Your task to perform on an android device: delete the emails in spam in the gmail app Image 0: 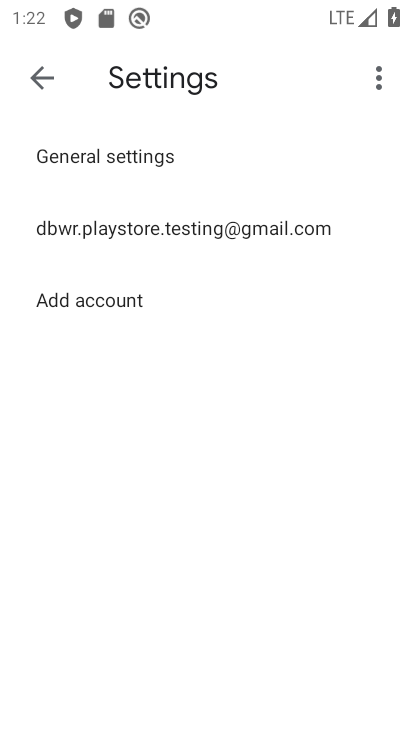
Step 0: press home button
Your task to perform on an android device: delete the emails in spam in the gmail app Image 1: 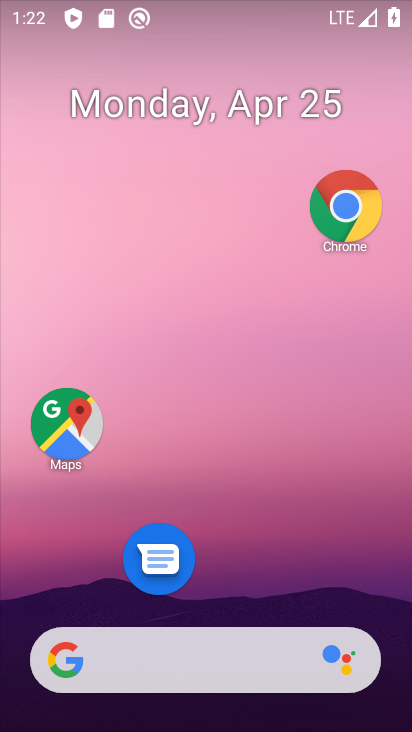
Step 1: drag from (204, 579) to (265, 110)
Your task to perform on an android device: delete the emails in spam in the gmail app Image 2: 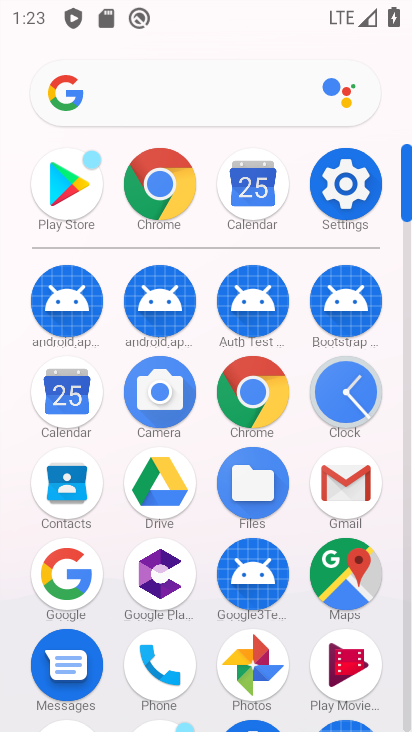
Step 2: click (363, 486)
Your task to perform on an android device: delete the emails in spam in the gmail app Image 3: 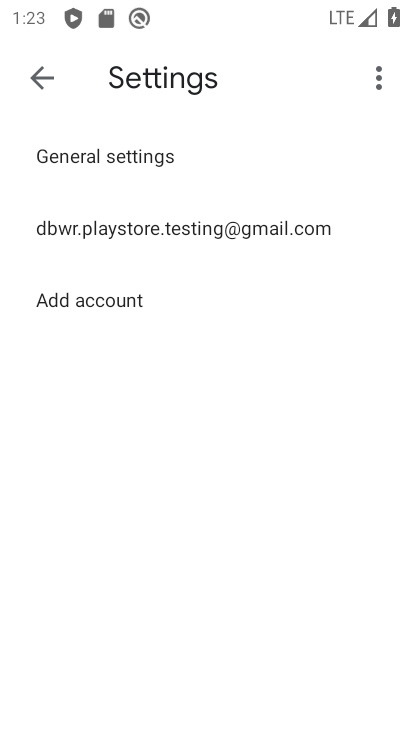
Step 3: click (29, 70)
Your task to perform on an android device: delete the emails in spam in the gmail app Image 4: 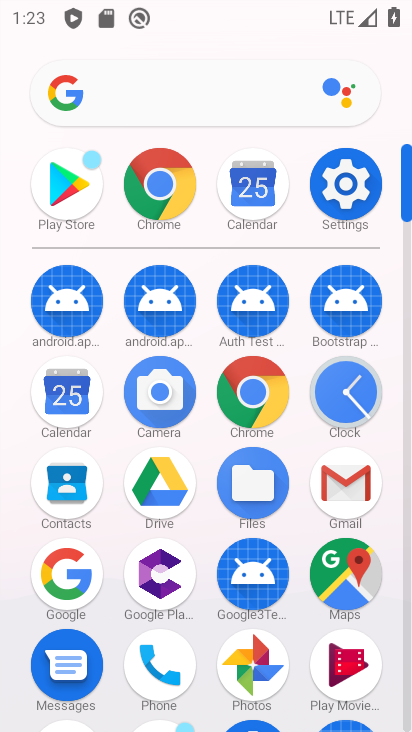
Step 4: click (342, 494)
Your task to perform on an android device: delete the emails in spam in the gmail app Image 5: 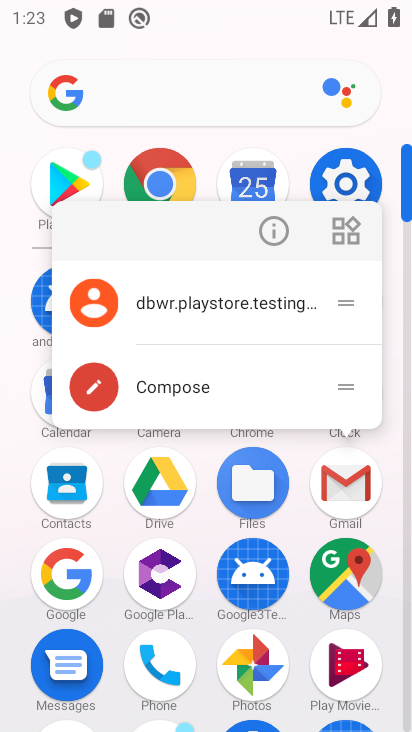
Step 5: click (353, 487)
Your task to perform on an android device: delete the emails in spam in the gmail app Image 6: 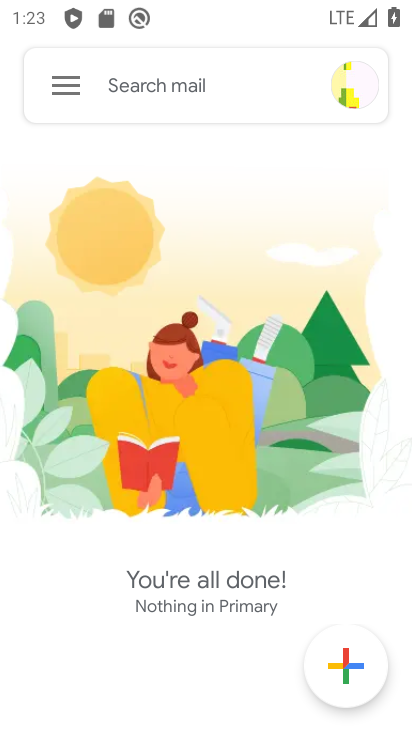
Step 6: click (61, 75)
Your task to perform on an android device: delete the emails in spam in the gmail app Image 7: 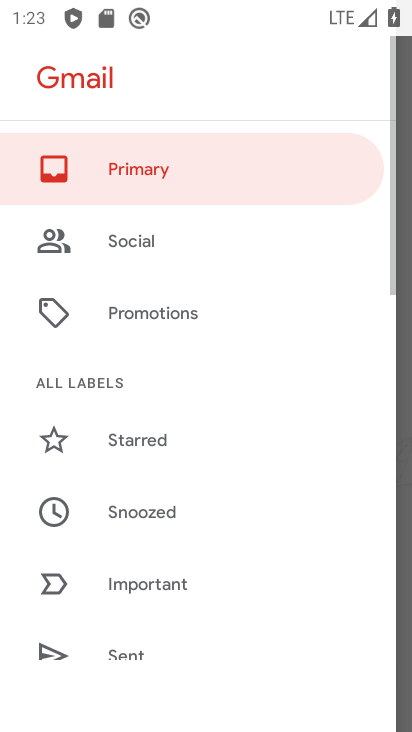
Step 7: drag from (178, 616) to (316, 51)
Your task to perform on an android device: delete the emails in spam in the gmail app Image 8: 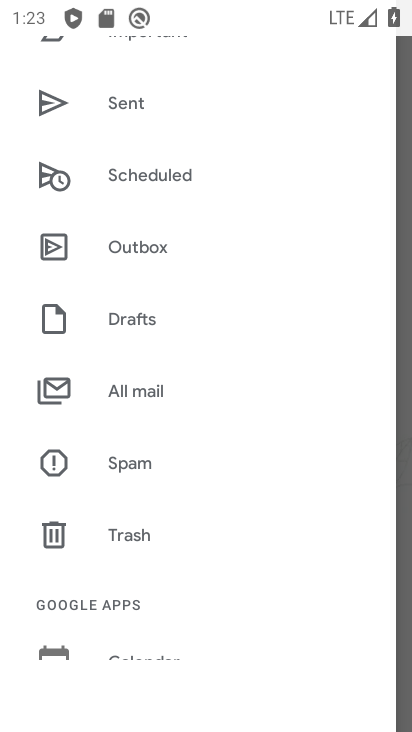
Step 8: click (116, 456)
Your task to perform on an android device: delete the emails in spam in the gmail app Image 9: 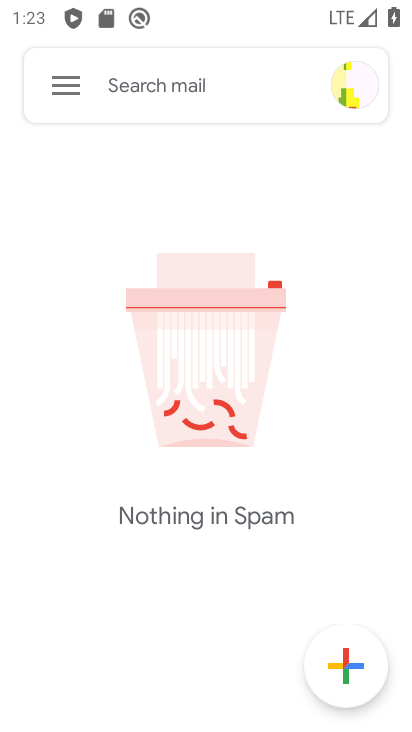
Step 9: task complete